Your task to perform on an android device: make emails show in primary in the gmail app Image 0: 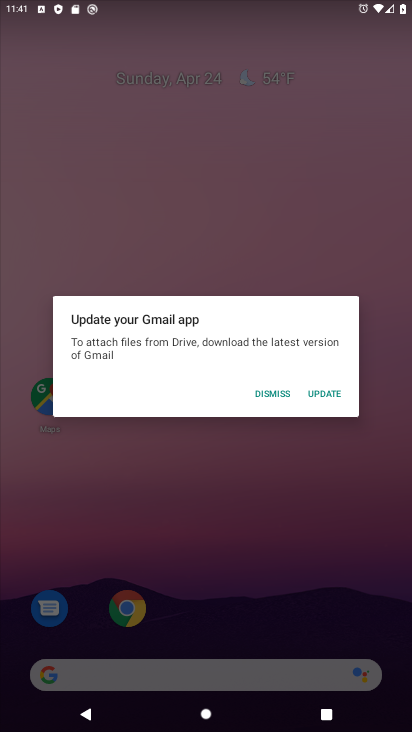
Step 0: click (266, 398)
Your task to perform on an android device: make emails show in primary in the gmail app Image 1: 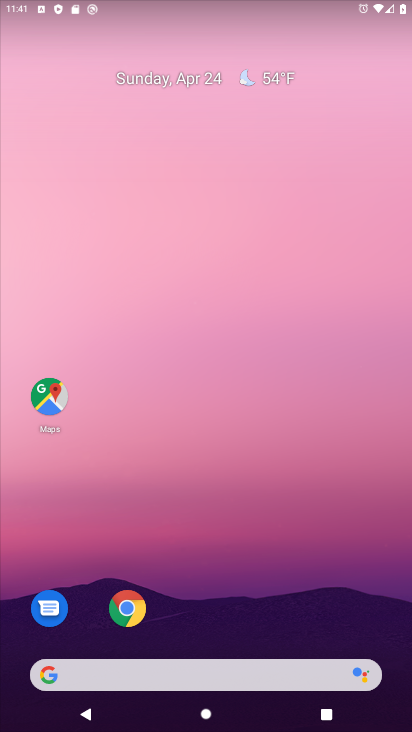
Step 1: drag from (372, 646) to (255, 177)
Your task to perform on an android device: make emails show in primary in the gmail app Image 2: 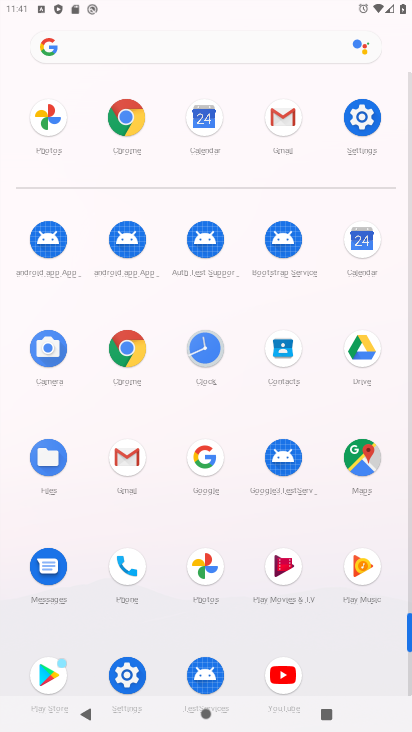
Step 2: click (409, 686)
Your task to perform on an android device: make emails show in primary in the gmail app Image 3: 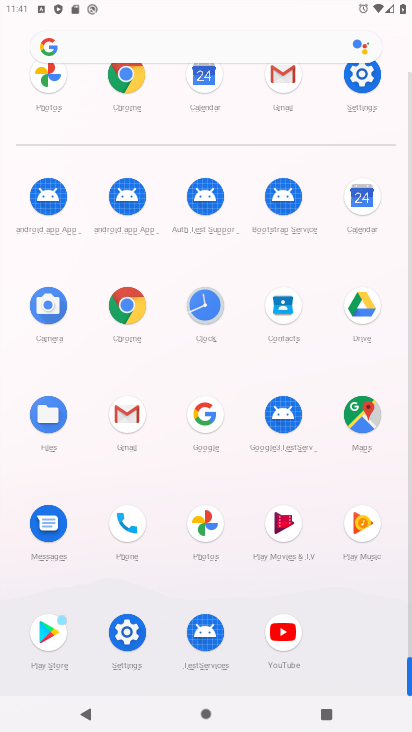
Step 3: click (126, 410)
Your task to perform on an android device: make emails show in primary in the gmail app Image 4: 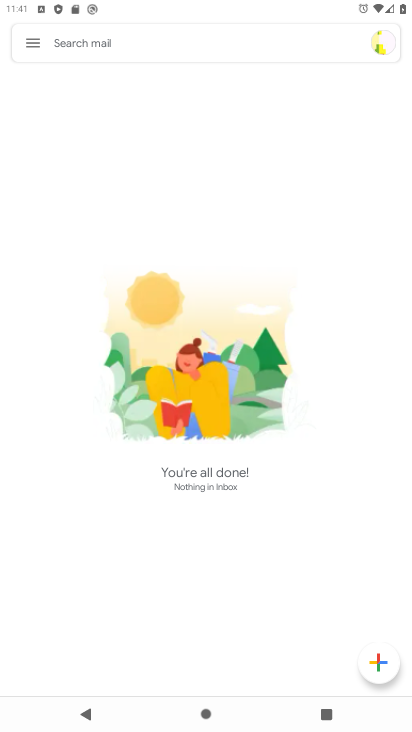
Step 4: click (30, 43)
Your task to perform on an android device: make emails show in primary in the gmail app Image 5: 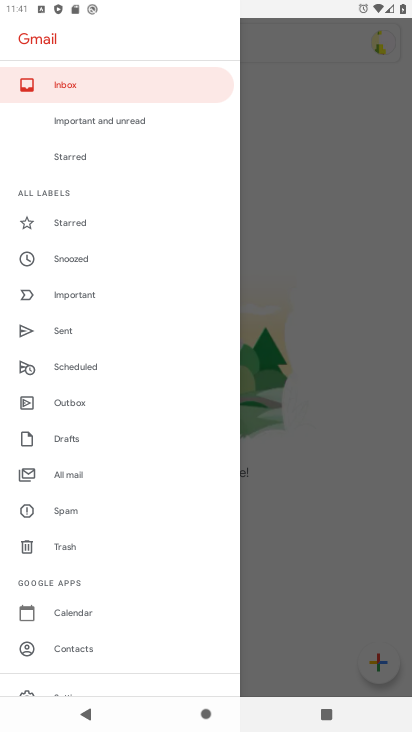
Step 5: drag from (122, 614) to (129, 369)
Your task to perform on an android device: make emails show in primary in the gmail app Image 6: 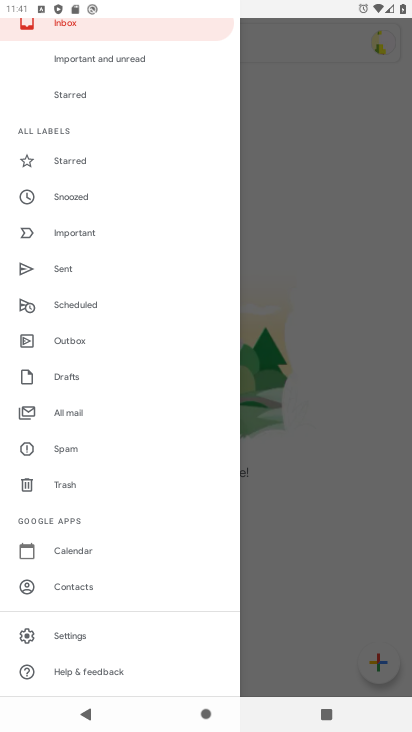
Step 6: click (65, 637)
Your task to perform on an android device: make emails show in primary in the gmail app Image 7: 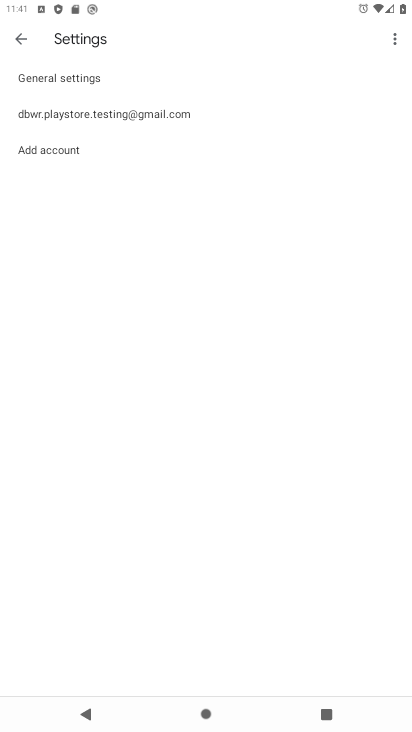
Step 7: click (99, 114)
Your task to perform on an android device: make emails show in primary in the gmail app Image 8: 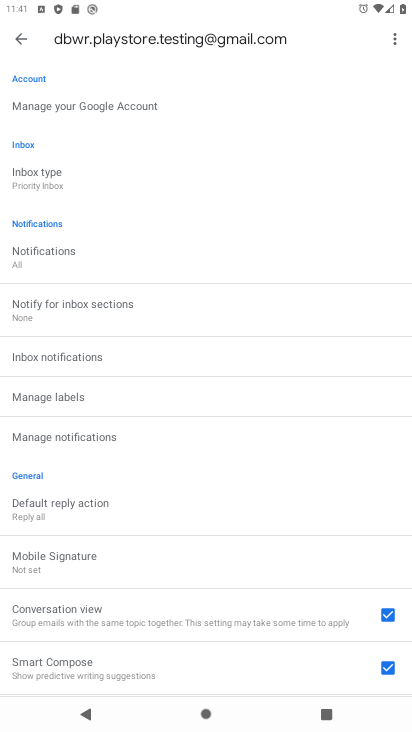
Step 8: click (30, 173)
Your task to perform on an android device: make emails show in primary in the gmail app Image 9: 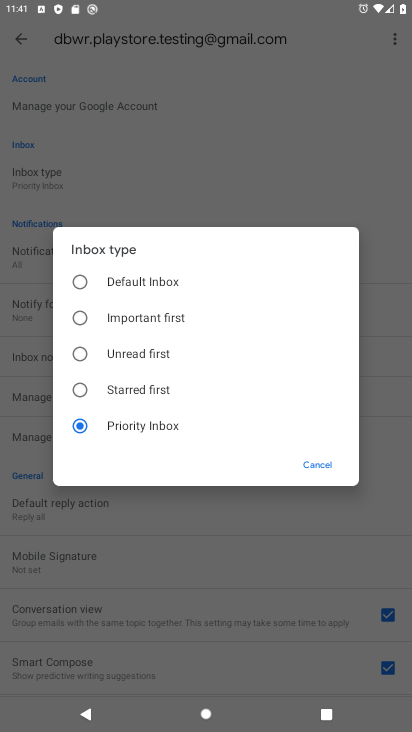
Step 9: click (76, 280)
Your task to perform on an android device: make emails show in primary in the gmail app Image 10: 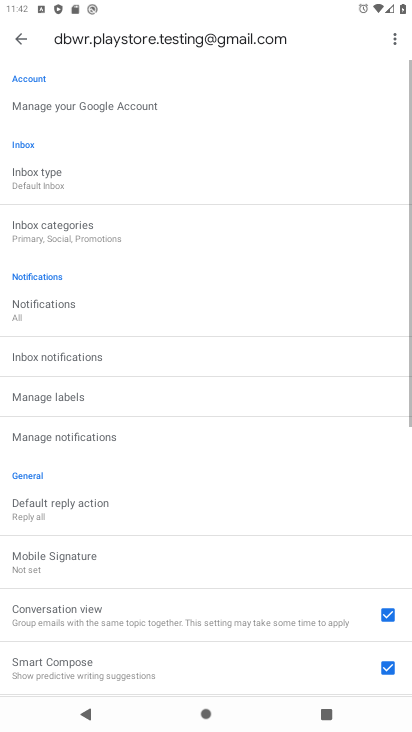
Step 10: click (33, 224)
Your task to perform on an android device: make emails show in primary in the gmail app Image 11: 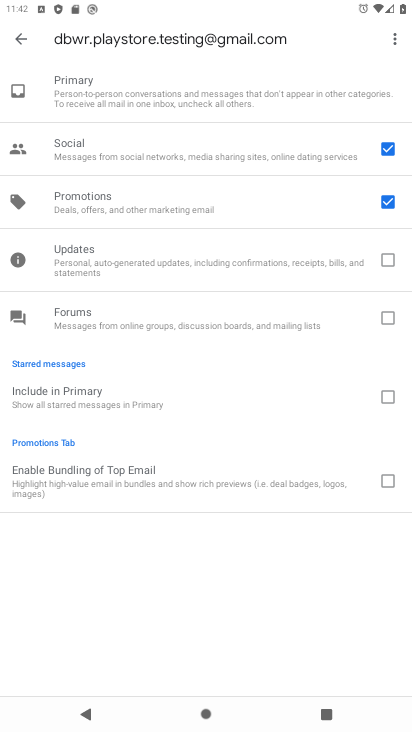
Step 11: click (382, 201)
Your task to perform on an android device: make emails show in primary in the gmail app Image 12: 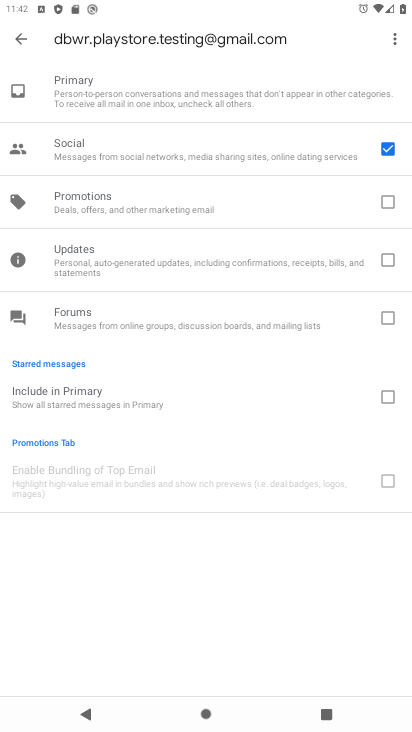
Step 12: click (385, 152)
Your task to perform on an android device: make emails show in primary in the gmail app Image 13: 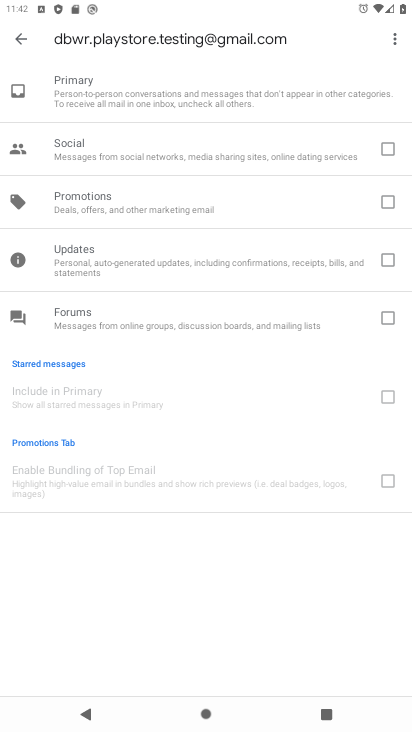
Step 13: task complete